Your task to perform on an android device: change timer sound Image 0: 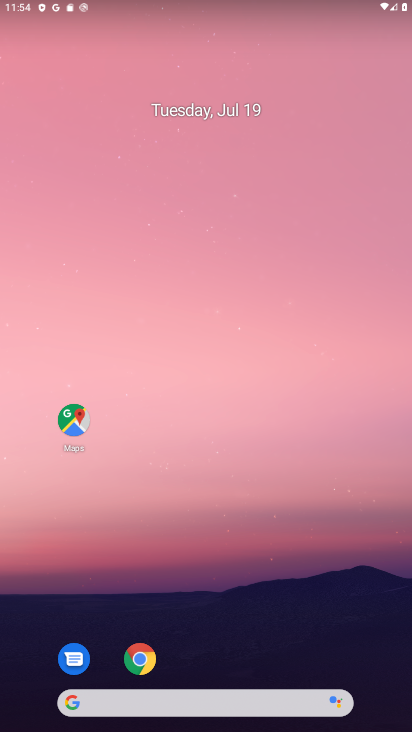
Step 0: drag from (226, 664) to (314, 10)
Your task to perform on an android device: change timer sound Image 1: 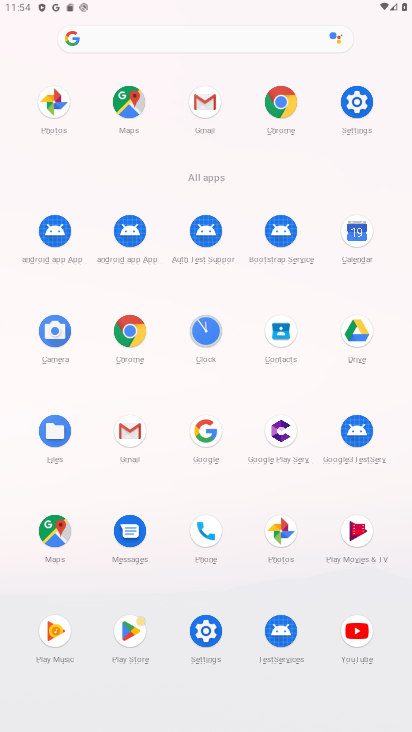
Step 1: click (206, 325)
Your task to perform on an android device: change timer sound Image 2: 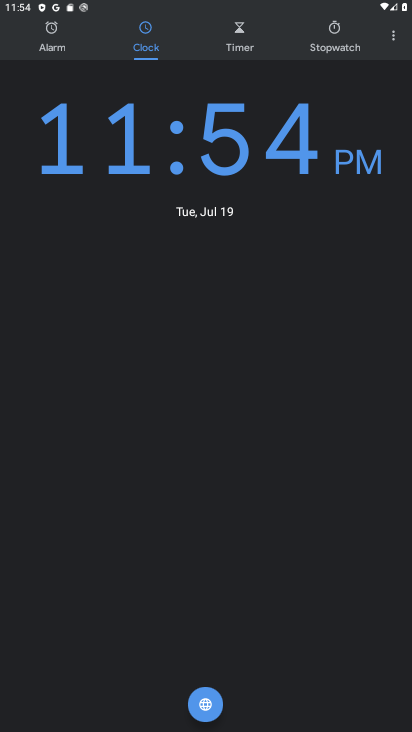
Step 2: click (394, 32)
Your task to perform on an android device: change timer sound Image 3: 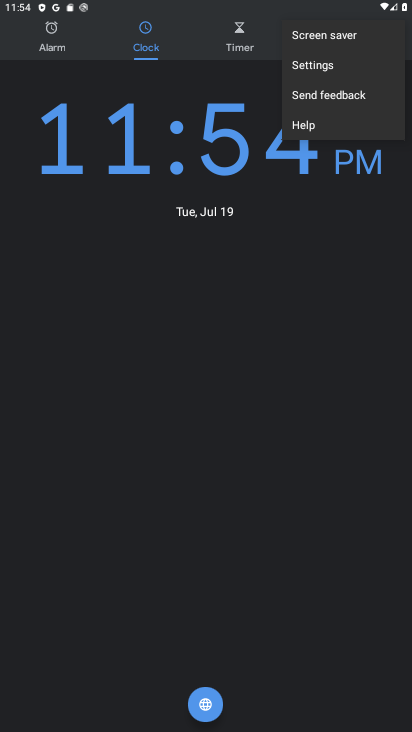
Step 3: click (337, 62)
Your task to perform on an android device: change timer sound Image 4: 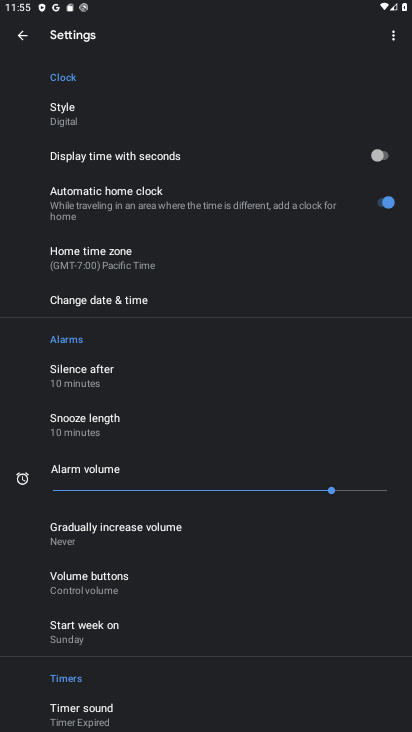
Step 4: drag from (172, 672) to (233, 115)
Your task to perform on an android device: change timer sound Image 5: 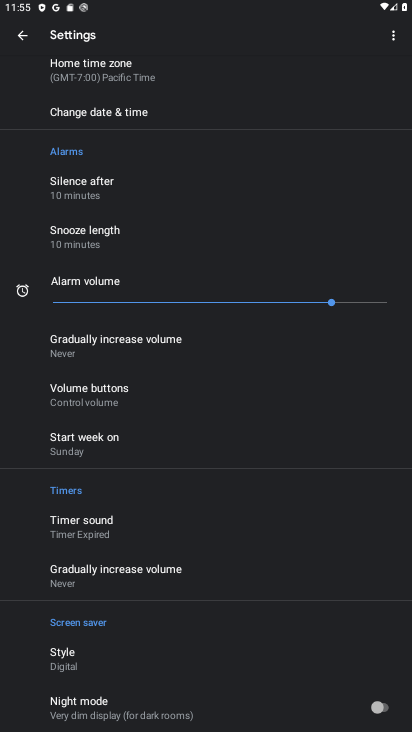
Step 5: click (129, 525)
Your task to perform on an android device: change timer sound Image 6: 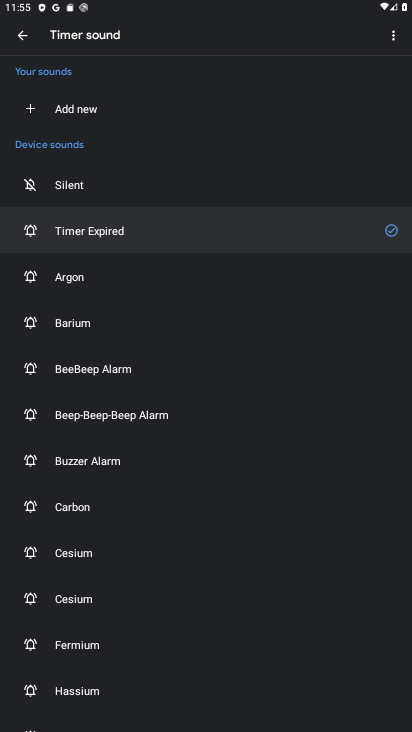
Step 6: click (113, 547)
Your task to perform on an android device: change timer sound Image 7: 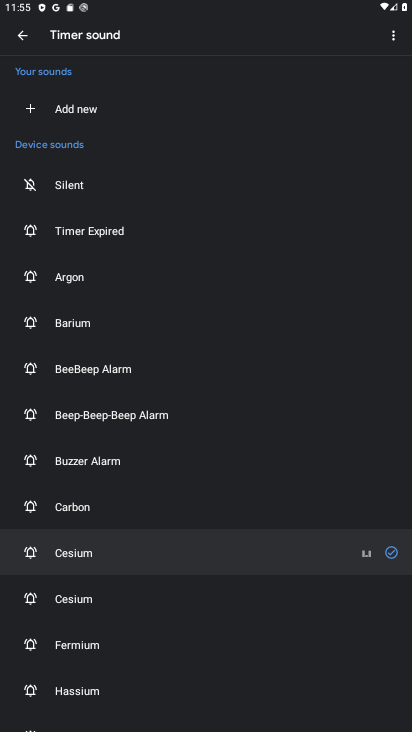
Step 7: task complete